Your task to perform on an android device: change the clock display to show seconds Image 0: 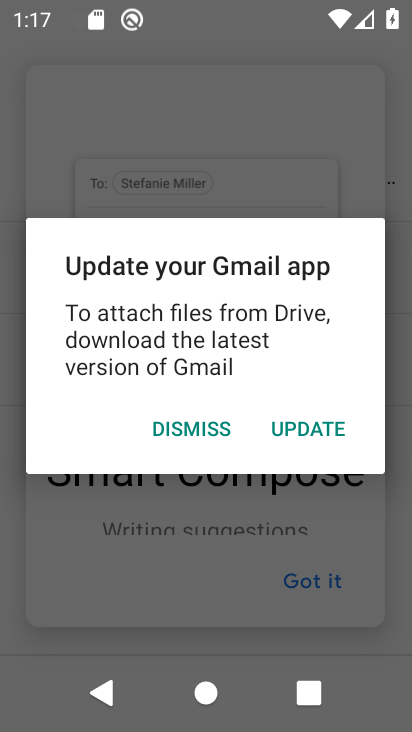
Step 0: press home button
Your task to perform on an android device: change the clock display to show seconds Image 1: 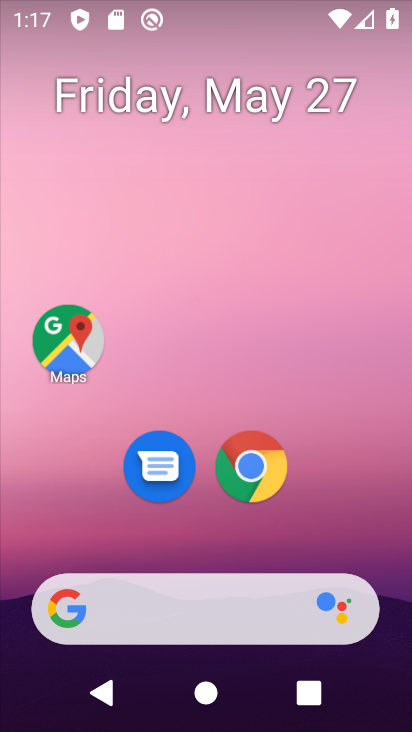
Step 1: drag from (371, 549) to (321, 80)
Your task to perform on an android device: change the clock display to show seconds Image 2: 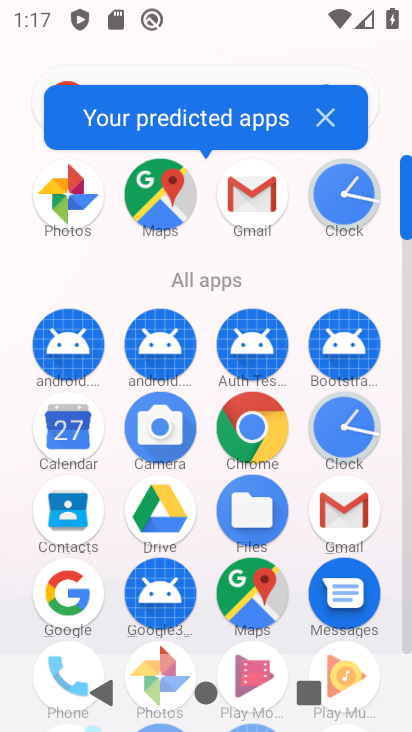
Step 2: click (330, 199)
Your task to perform on an android device: change the clock display to show seconds Image 3: 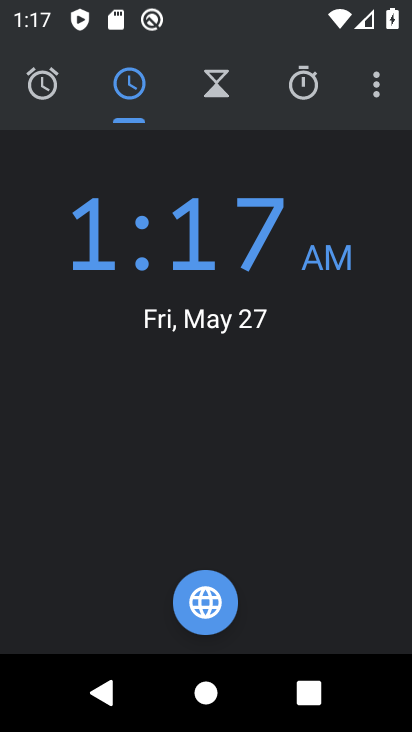
Step 3: click (367, 101)
Your task to perform on an android device: change the clock display to show seconds Image 4: 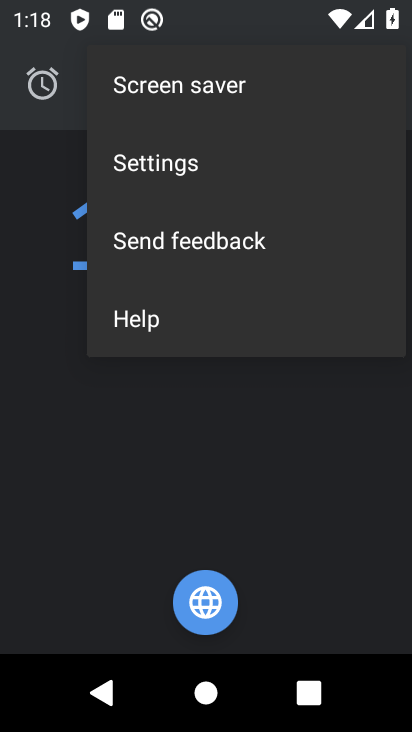
Step 4: click (207, 181)
Your task to perform on an android device: change the clock display to show seconds Image 5: 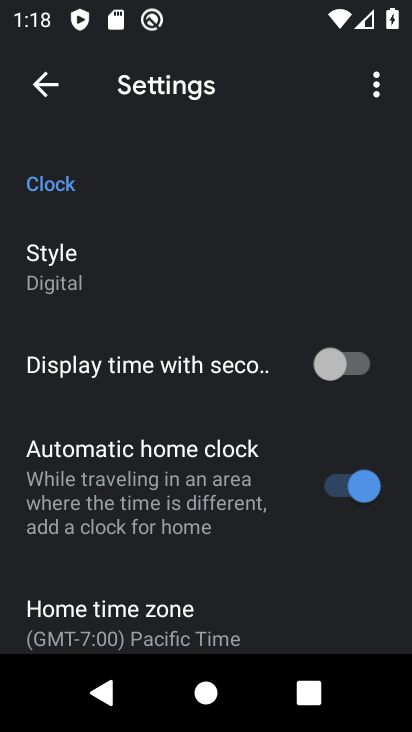
Step 5: click (323, 368)
Your task to perform on an android device: change the clock display to show seconds Image 6: 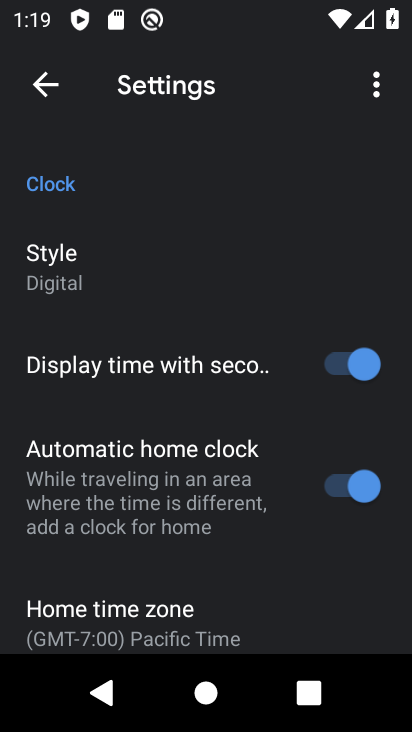
Step 6: task complete